Your task to perform on an android device: search for starred emails in the gmail app Image 0: 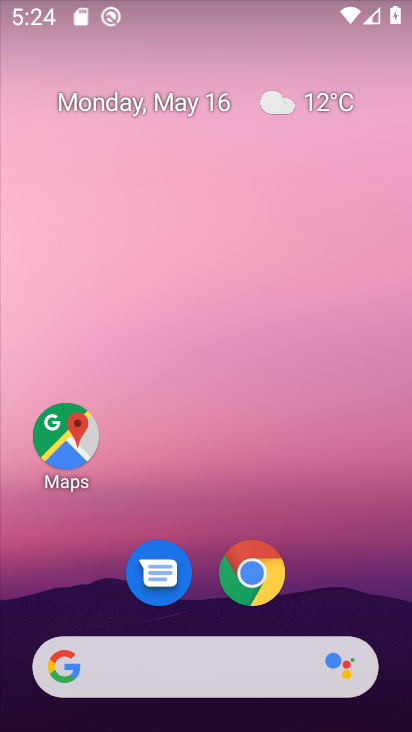
Step 0: drag from (169, 576) to (249, 42)
Your task to perform on an android device: search for starred emails in the gmail app Image 1: 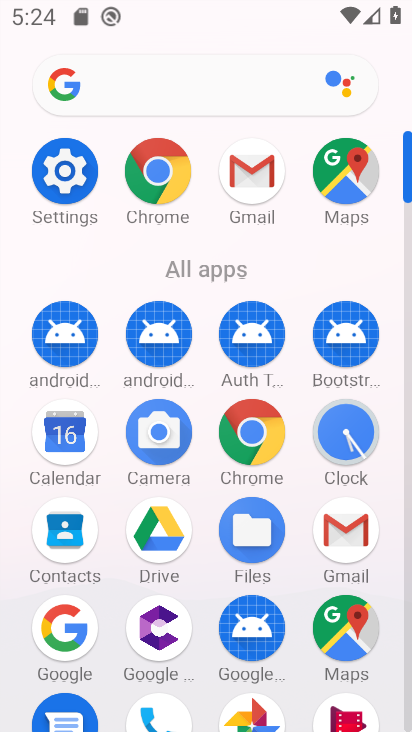
Step 1: click (267, 181)
Your task to perform on an android device: search for starred emails in the gmail app Image 2: 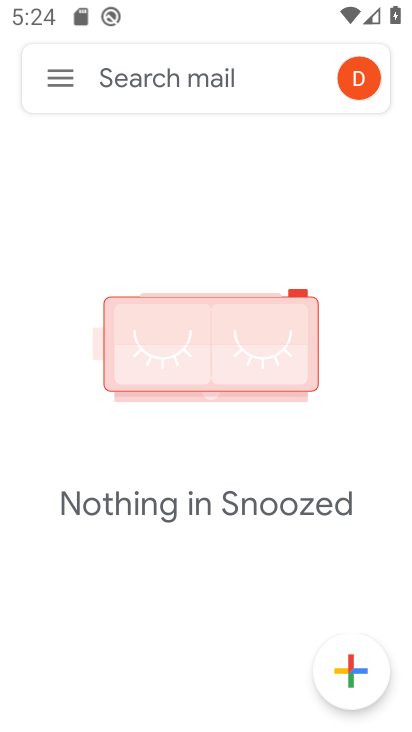
Step 2: click (64, 62)
Your task to perform on an android device: search for starred emails in the gmail app Image 3: 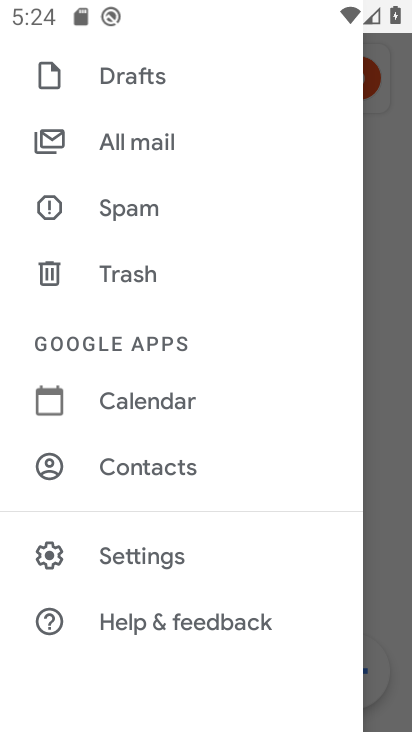
Step 3: drag from (142, 104) to (141, 593)
Your task to perform on an android device: search for starred emails in the gmail app Image 4: 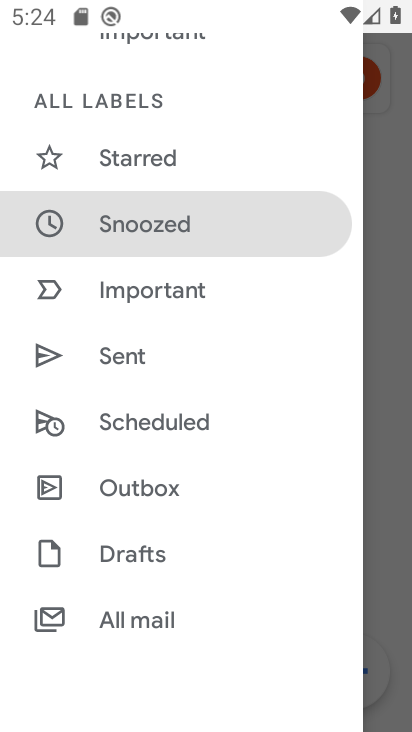
Step 4: click (127, 167)
Your task to perform on an android device: search for starred emails in the gmail app Image 5: 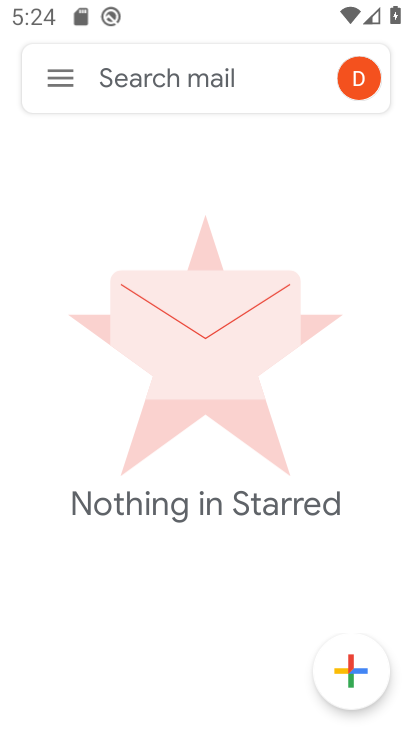
Step 5: task complete